Your task to perform on an android device: Check the news Image 0: 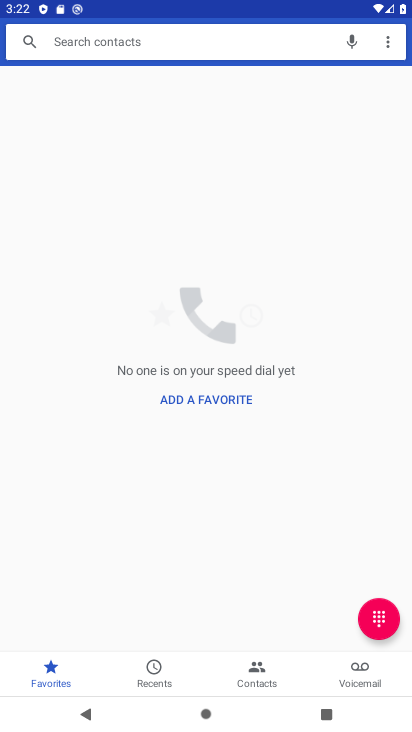
Step 0: press home button
Your task to perform on an android device: Check the news Image 1: 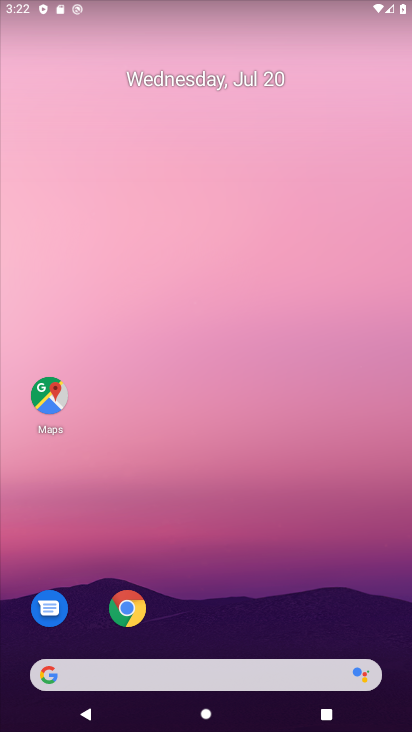
Step 1: drag from (239, 601) to (332, 62)
Your task to perform on an android device: Check the news Image 2: 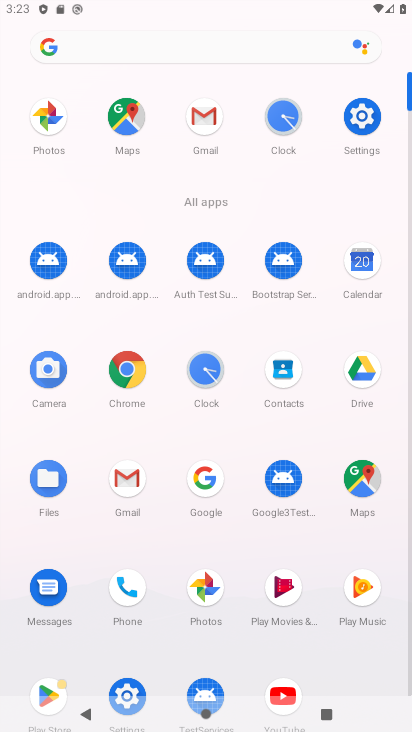
Step 2: click (159, 36)
Your task to perform on an android device: Check the news Image 3: 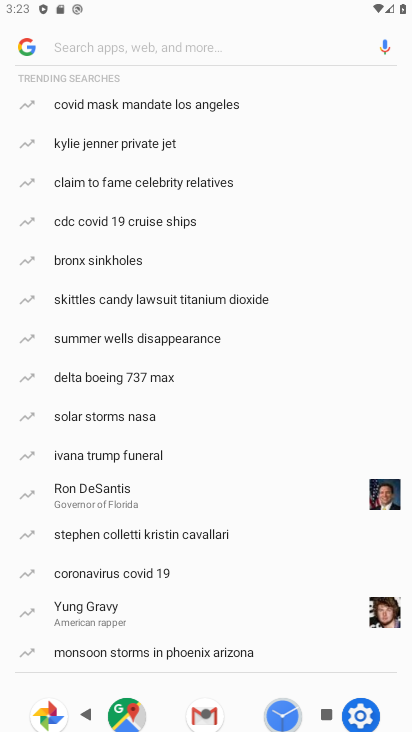
Step 3: type "news"
Your task to perform on an android device: Check the news Image 4: 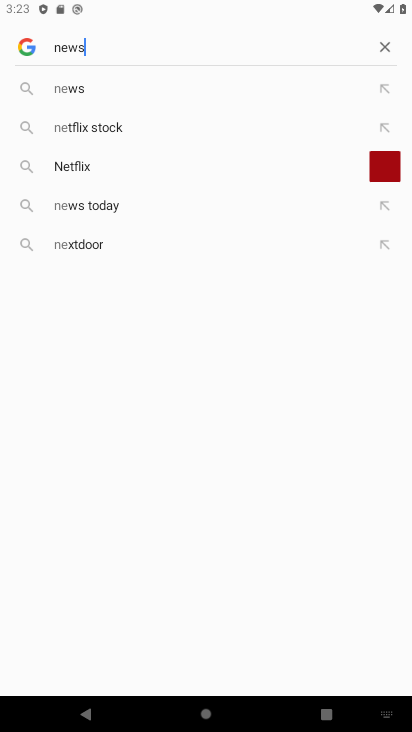
Step 4: type ""
Your task to perform on an android device: Check the news Image 5: 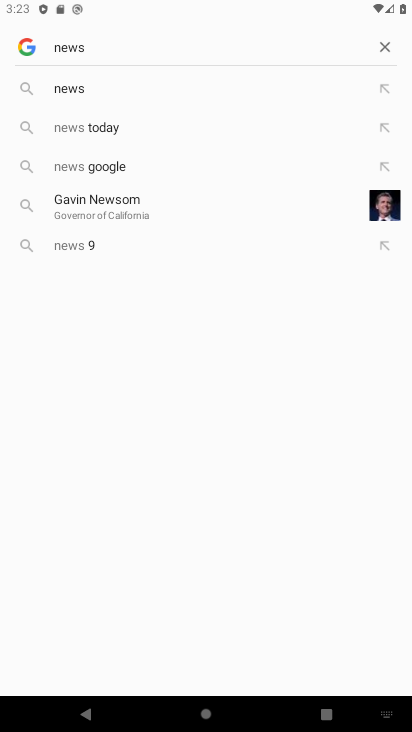
Step 5: click (125, 88)
Your task to perform on an android device: Check the news Image 6: 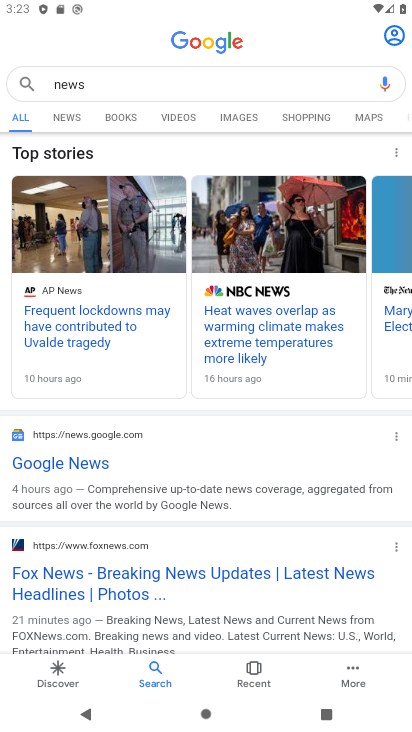
Step 6: click (94, 463)
Your task to perform on an android device: Check the news Image 7: 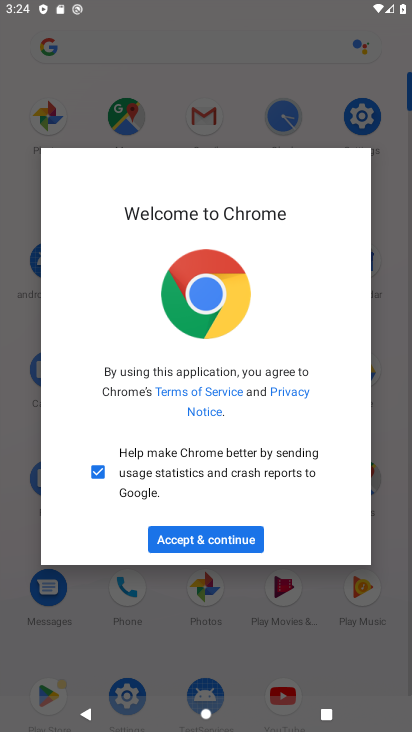
Step 7: click (216, 538)
Your task to perform on an android device: Check the news Image 8: 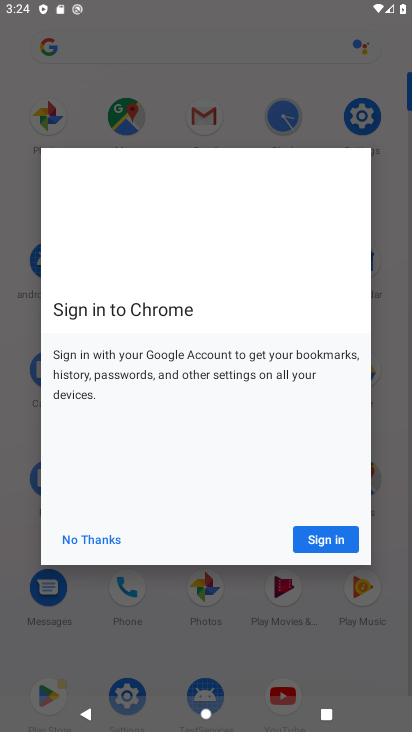
Step 8: click (315, 542)
Your task to perform on an android device: Check the news Image 9: 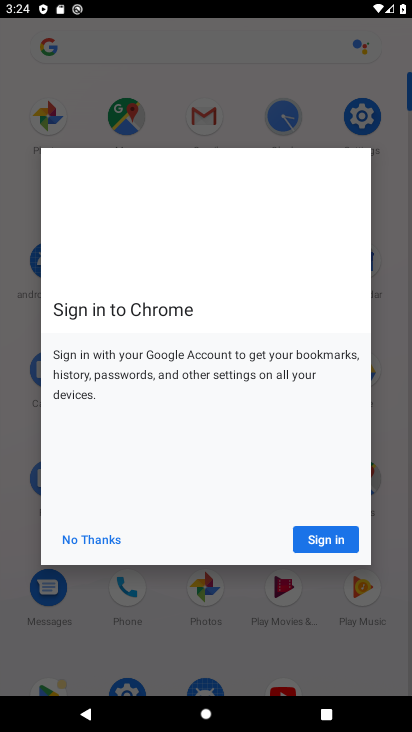
Step 9: click (326, 536)
Your task to perform on an android device: Check the news Image 10: 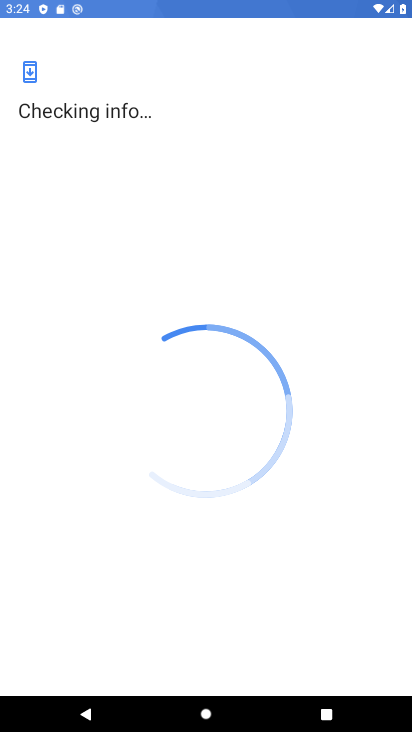
Step 10: task complete